Your task to perform on an android device: turn off wifi Image 0: 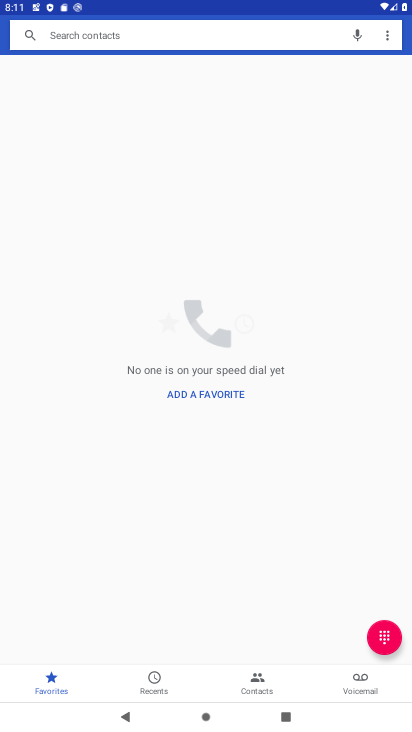
Step 0: press home button
Your task to perform on an android device: turn off wifi Image 1: 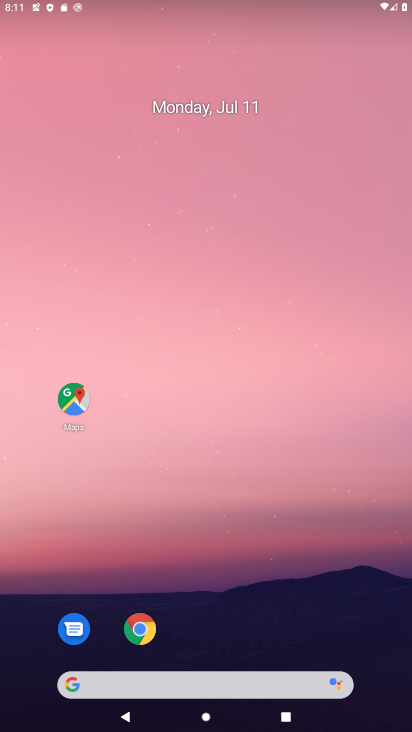
Step 1: drag from (208, 624) to (250, 120)
Your task to perform on an android device: turn off wifi Image 2: 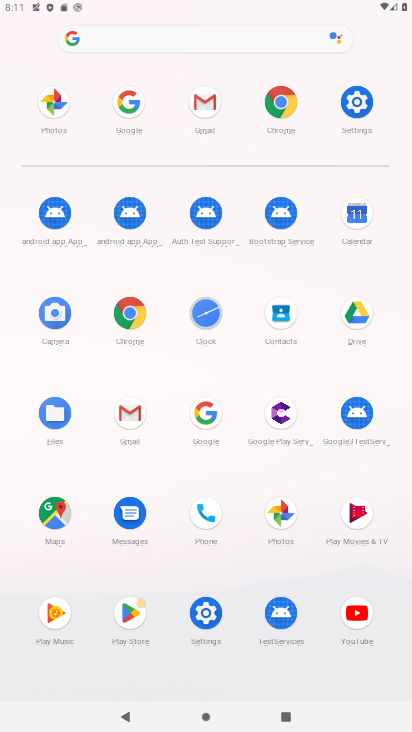
Step 2: click (359, 101)
Your task to perform on an android device: turn off wifi Image 3: 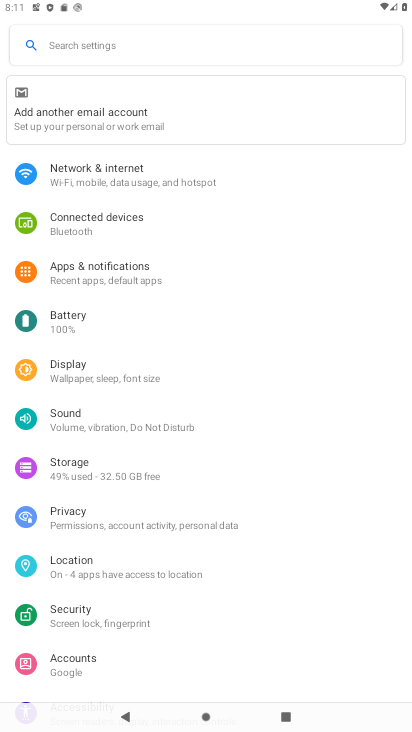
Step 3: click (114, 179)
Your task to perform on an android device: turn off wifi Image 4: 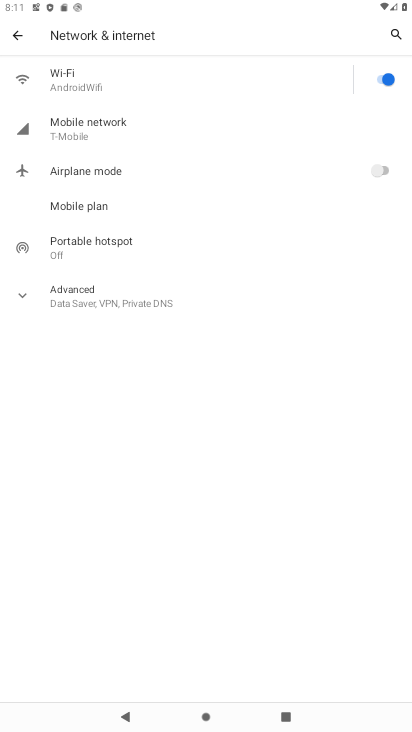
Step 4: click (380, 83)
Your task to perform on an android device: turn off wifi Image 5: 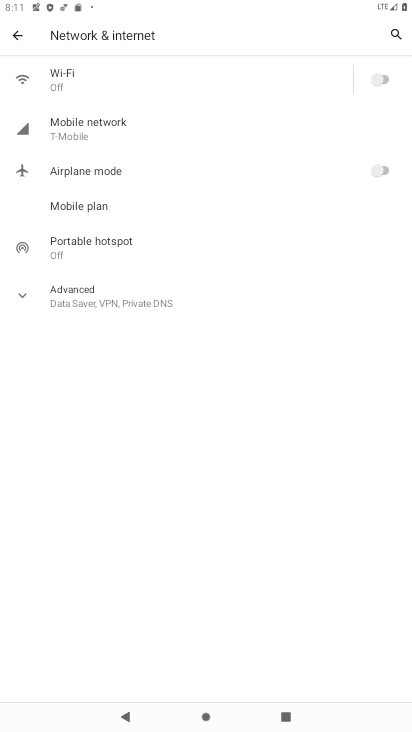
Step 5: task complete